Your task to perform on an android device: Show me popular videos on Youtube Image 0: 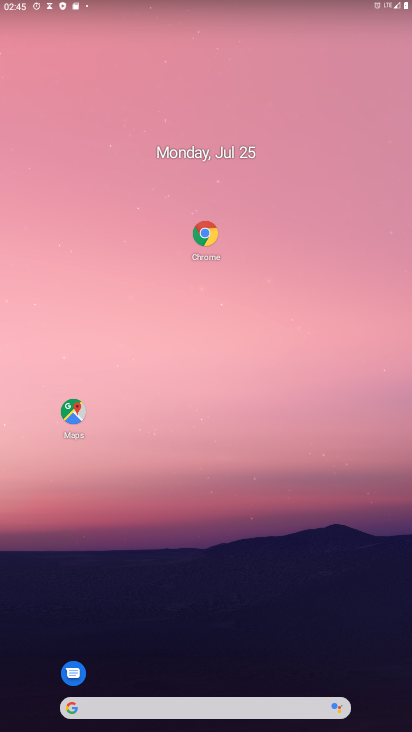
Step 0: drag from (286, 689) to (321, 44)
Your task to perform on an android device: Show me popular videos on Youtube Image 1: 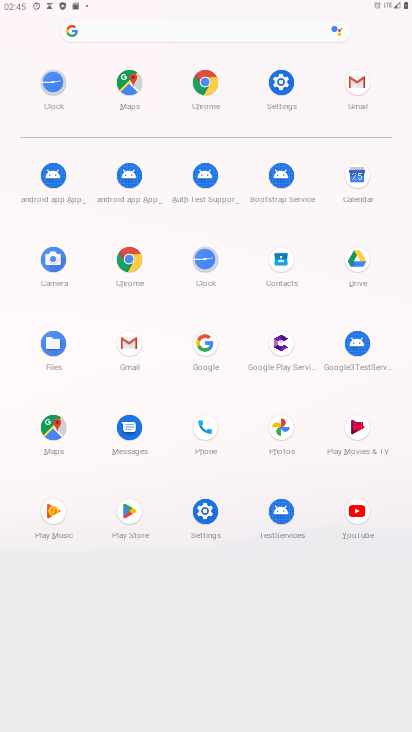
Step 1: click (355, 517)
Your task to perform on an android device: Show me popular videos on Youtube Image 2: 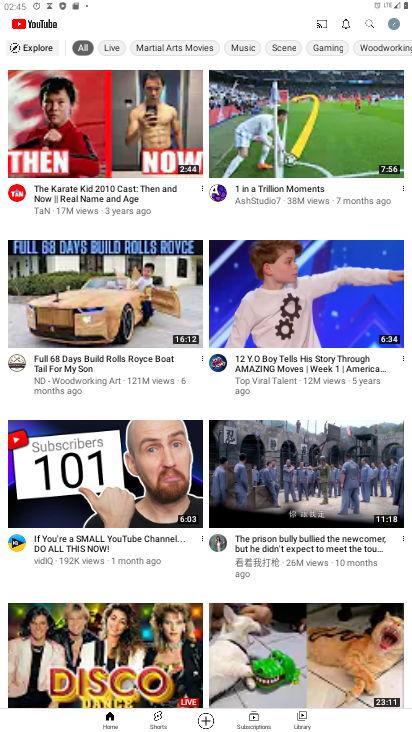
Step 2: task complete